Your task to perform on an android device: Open the phone app and click the voicemail tab. Image 0: 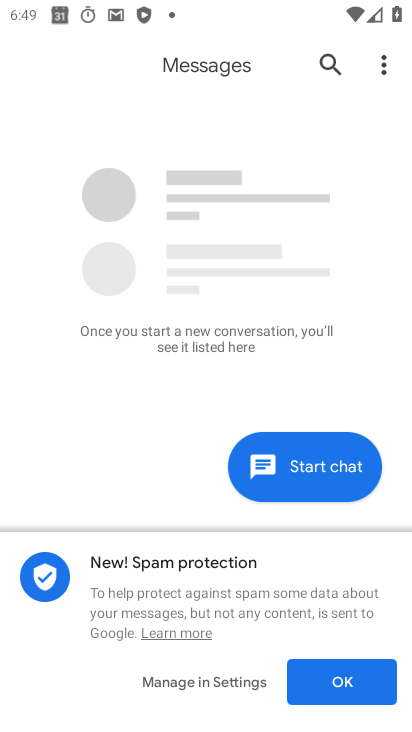
Step 0: press home button
Your task to perform on an android device: Open the phone app and click the voicemail tab. Image 1: 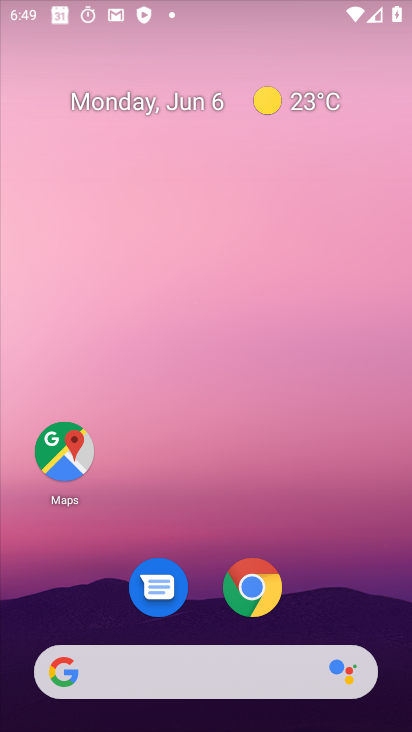
Step 1: drag from (391, 662) to (234, 107)
Your task to perform on an android device: Open the phone app and click the voicemail tab. Image 2: 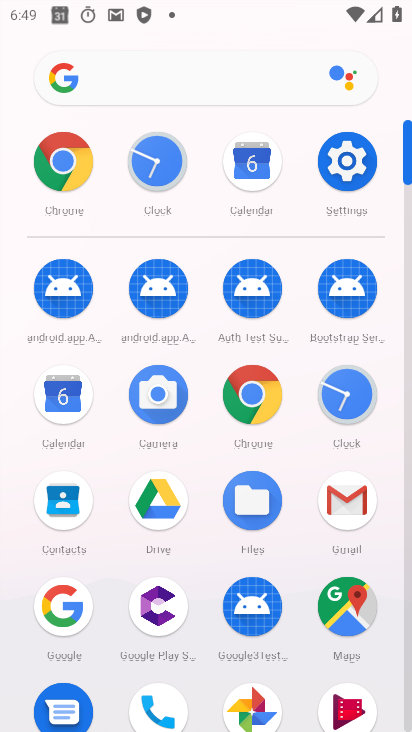
Step 2: click (152, 693)
Your task to perform on an android device: Open the phone app and click the voicemail tab. Image 3: 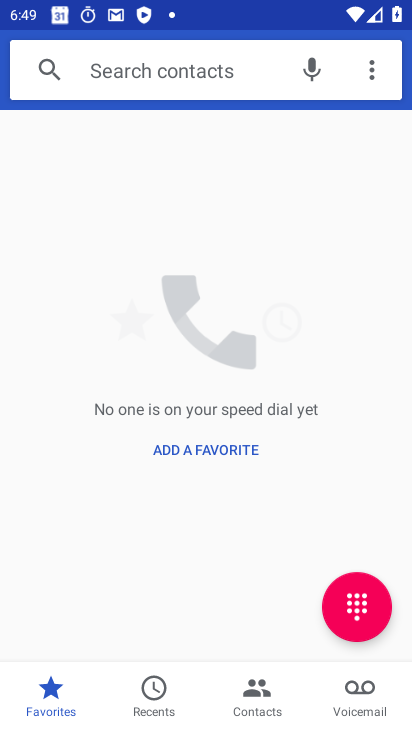
Step 3: click (380, 686)
Your task to perform on an android device: Open the phone app and click the voicemail tab. Image 4: 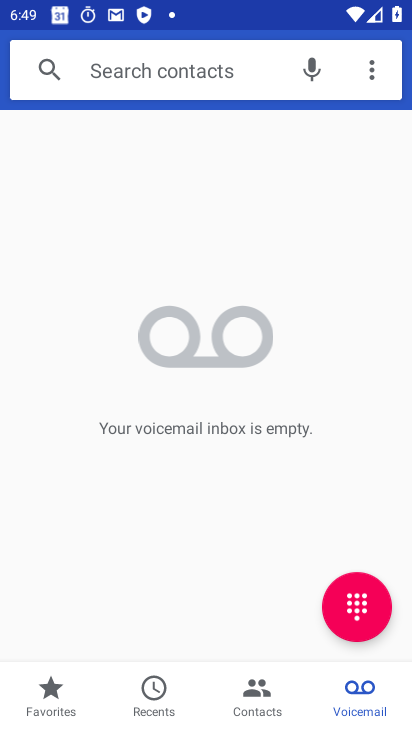
Step 4: task complete